Your task to perform on an android device: open app "Life360: Find Family & Friends" (install if not already installed), go to login, and select forgot password Image 0: 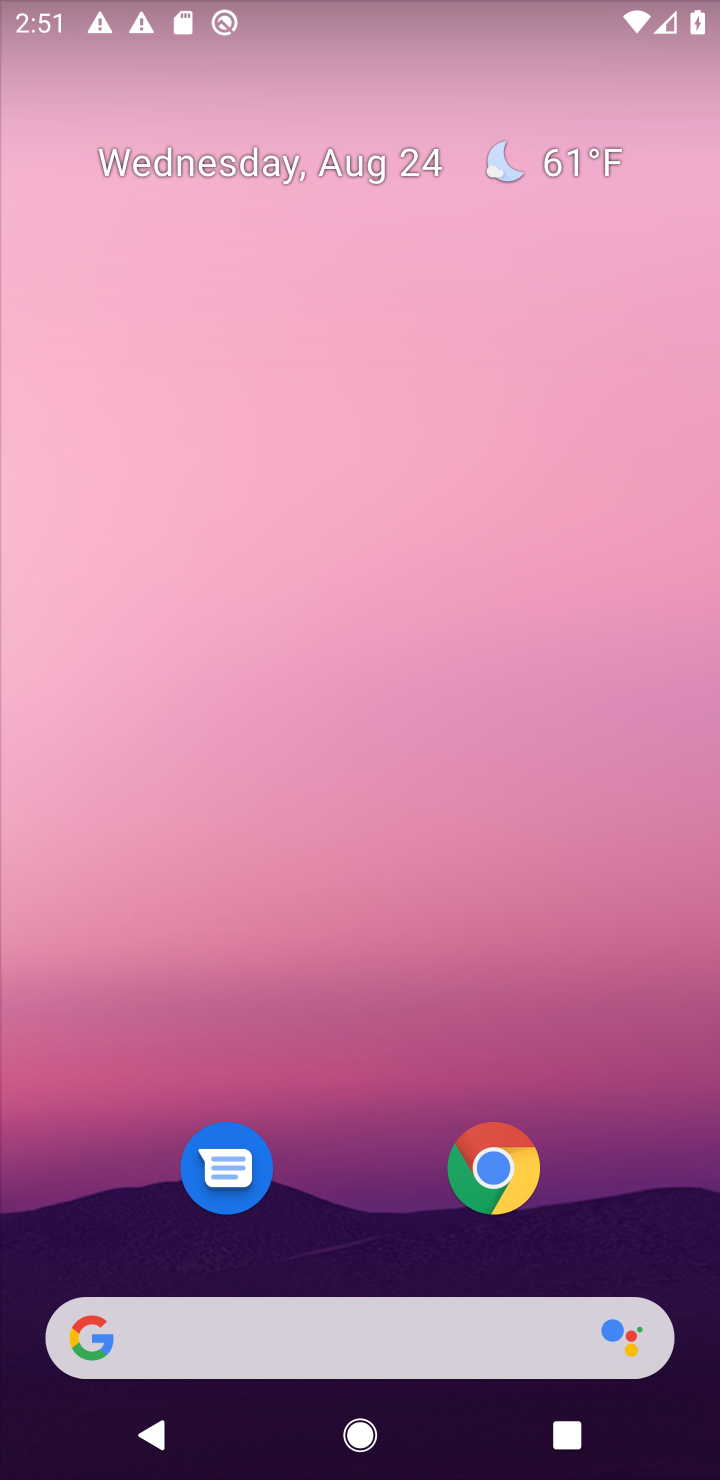
Step 0: drag from (682, 1254) to (641, 236)
Your task to perform on an android device: open app "Life360: Find Family & Friends" (install if not already installed), go to login, and select forgot password Image 1: 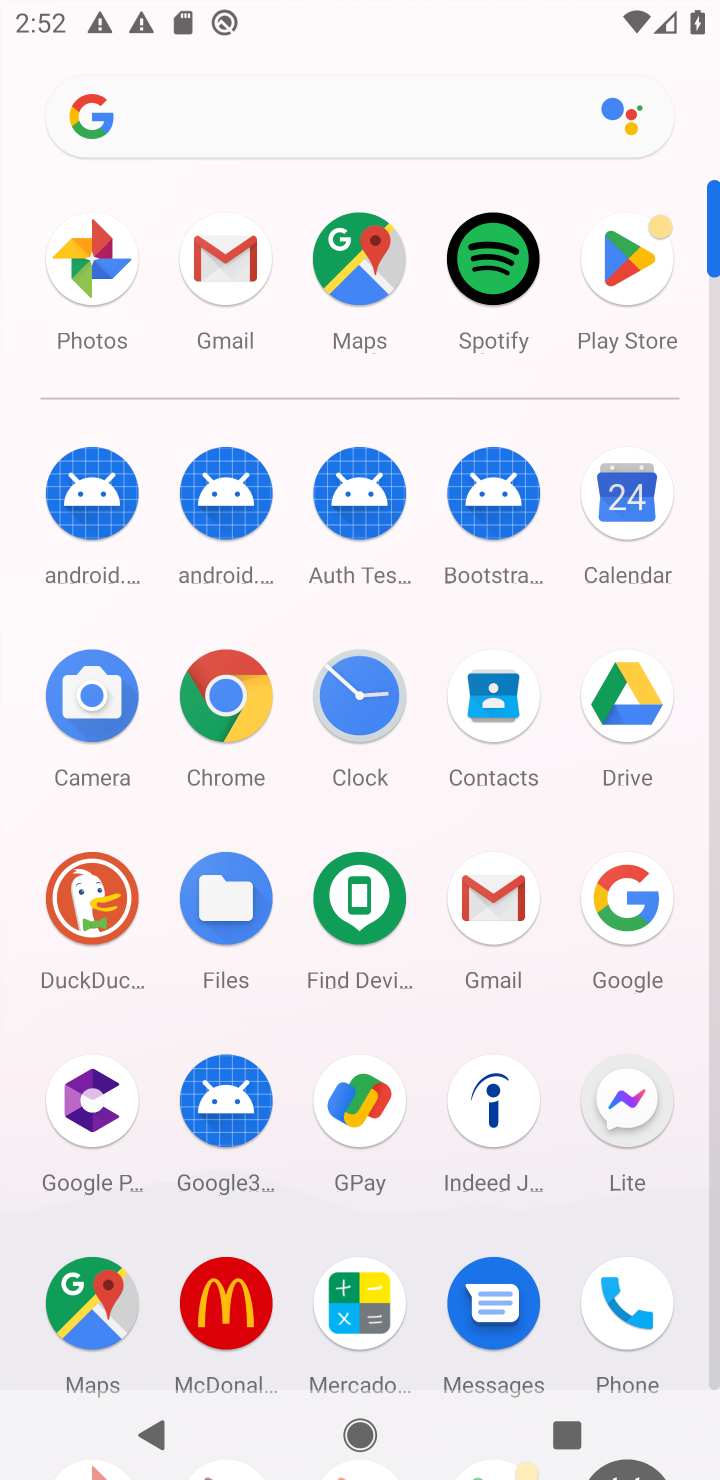
Step 1: click (713, 1307)
Your task to perform on an android device: open app "Life360: Find Family & Friends" (install if not already installed), go to login, and select forgot password Image 2: 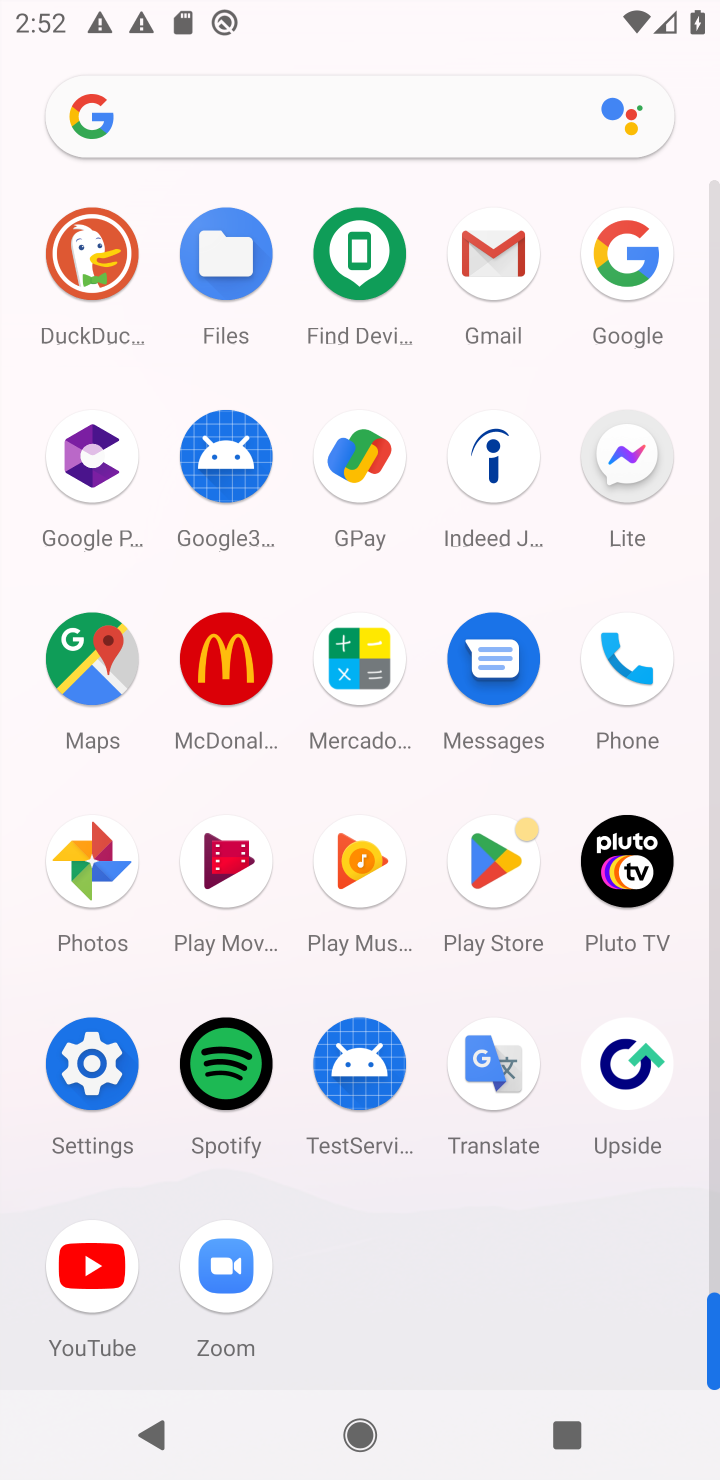
Step 2: click (506, 860)
Your task to perform on an android device: open app "Life360: Find Family & Friends" (install if not already installed), go to login, and select forgot password Image 3: 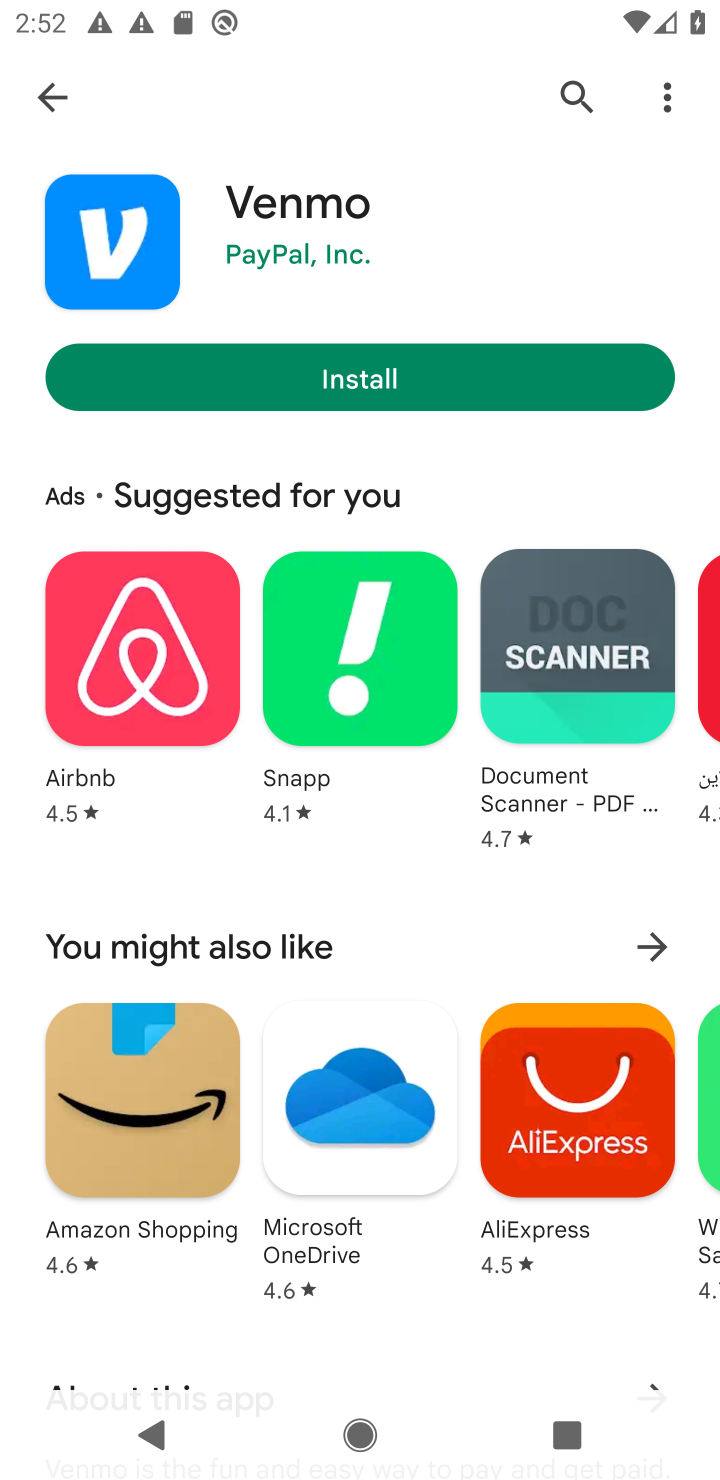
Step 3: click (578, 101)
Your task to perform on an android device: open app "Life360: Find Family & Friends" (install if not already installed), go to login, and select forgot password Image 4: 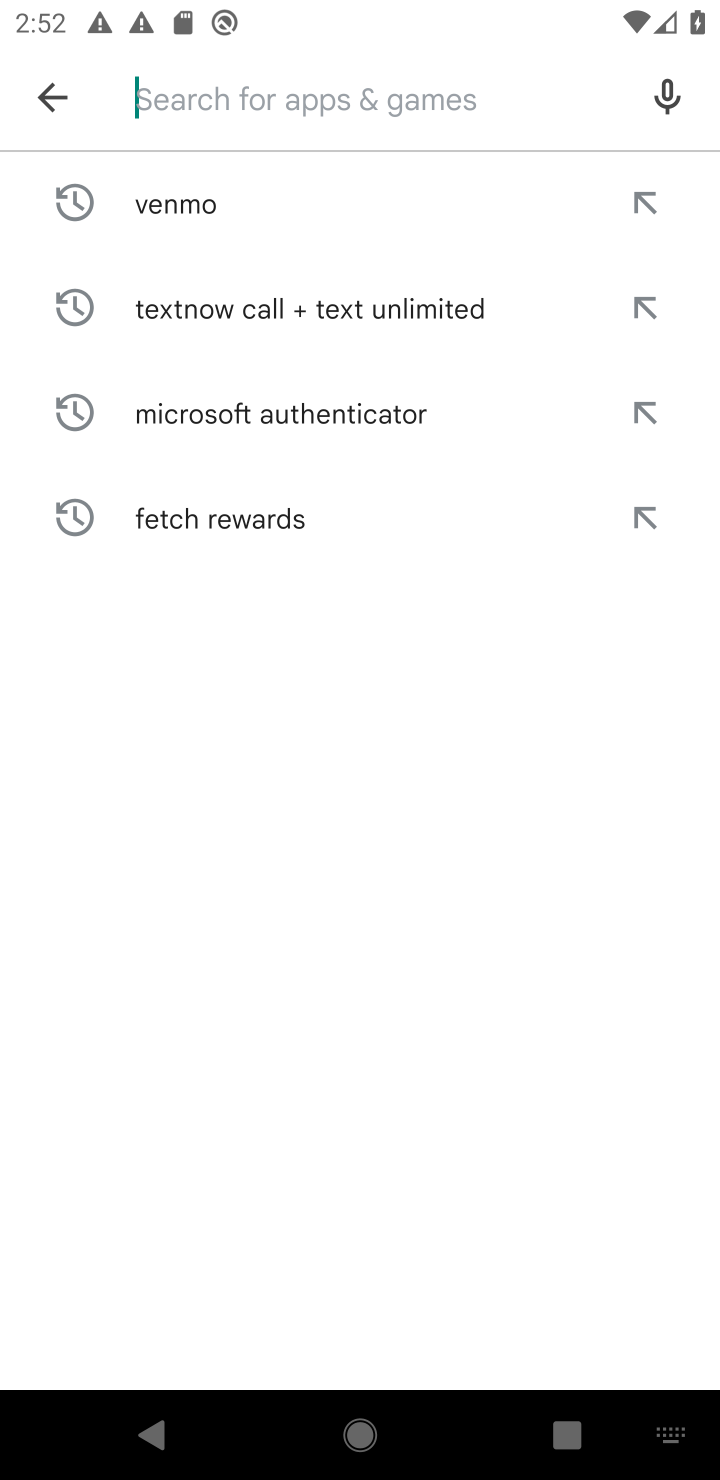
Step 4: type "Life360: Find Family & Friends"
Your task to perform on an android device: open app "Life360: Find Family & Friends" (install if not already installed), go to login, and select forgot password Image 5: 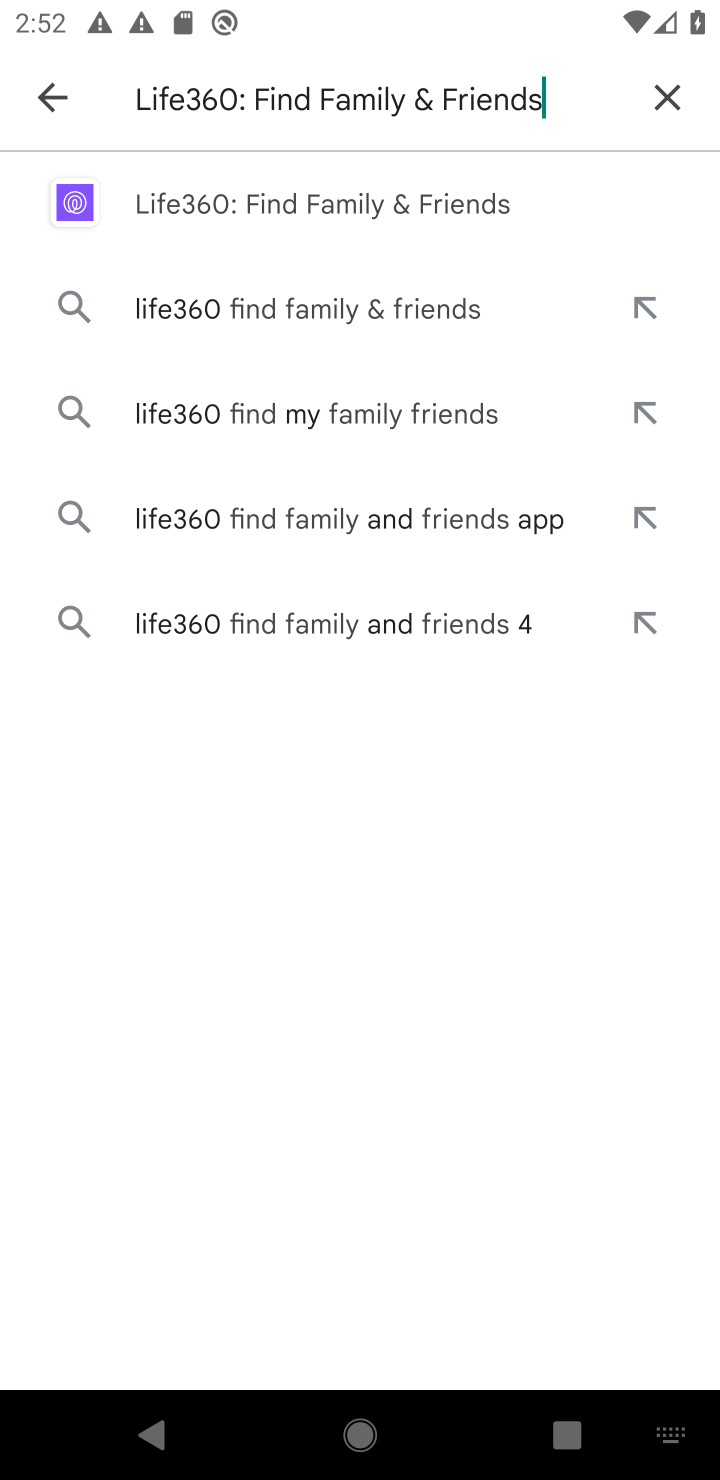
Step 5: click (211, 183)
Your task to perform on an android device: open app "Life360: Find Family & Friends" (install if not already installed), go to login, and select forgot password Image 6: 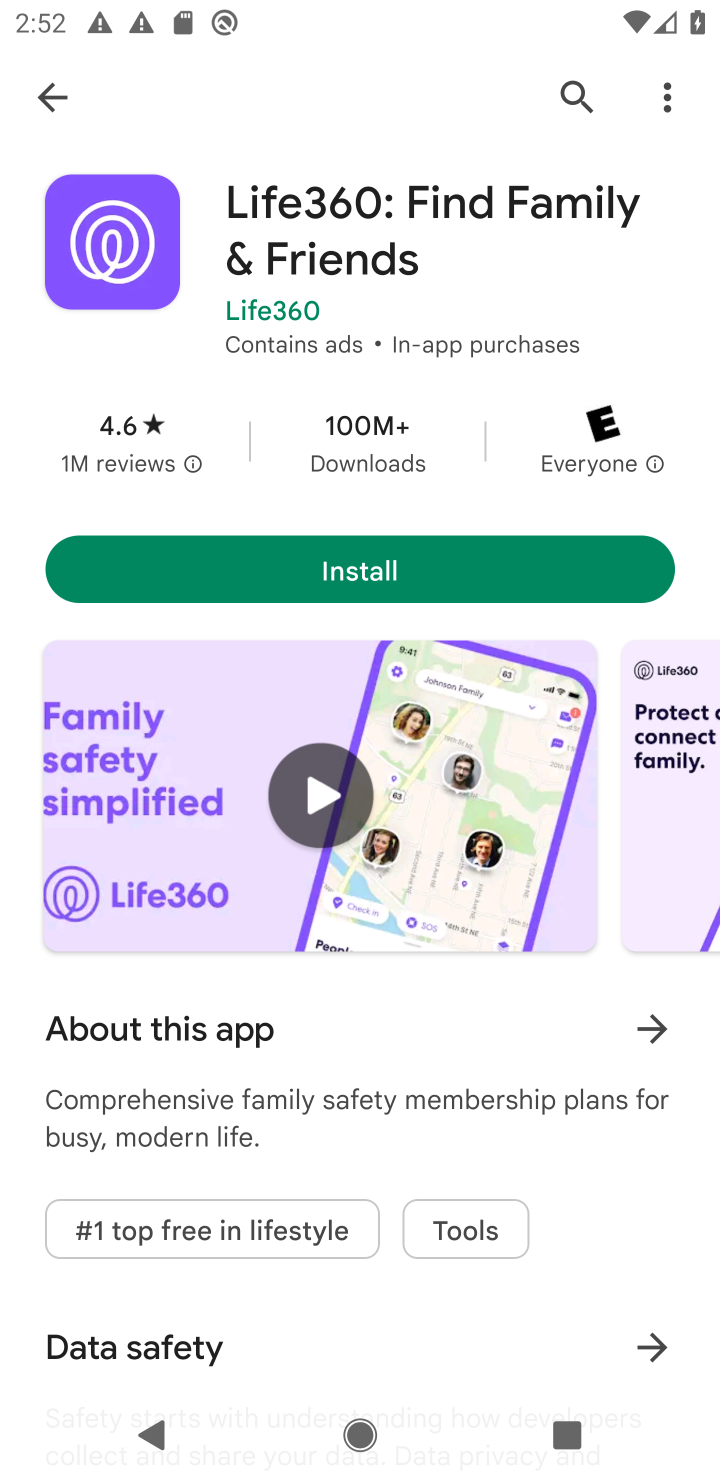
Step 6: click (354, 555)
Your task to perform on an android device: open app "Life360: Find Family & Friends" (install if not already installed), go to login, and select forgot password Image 7: 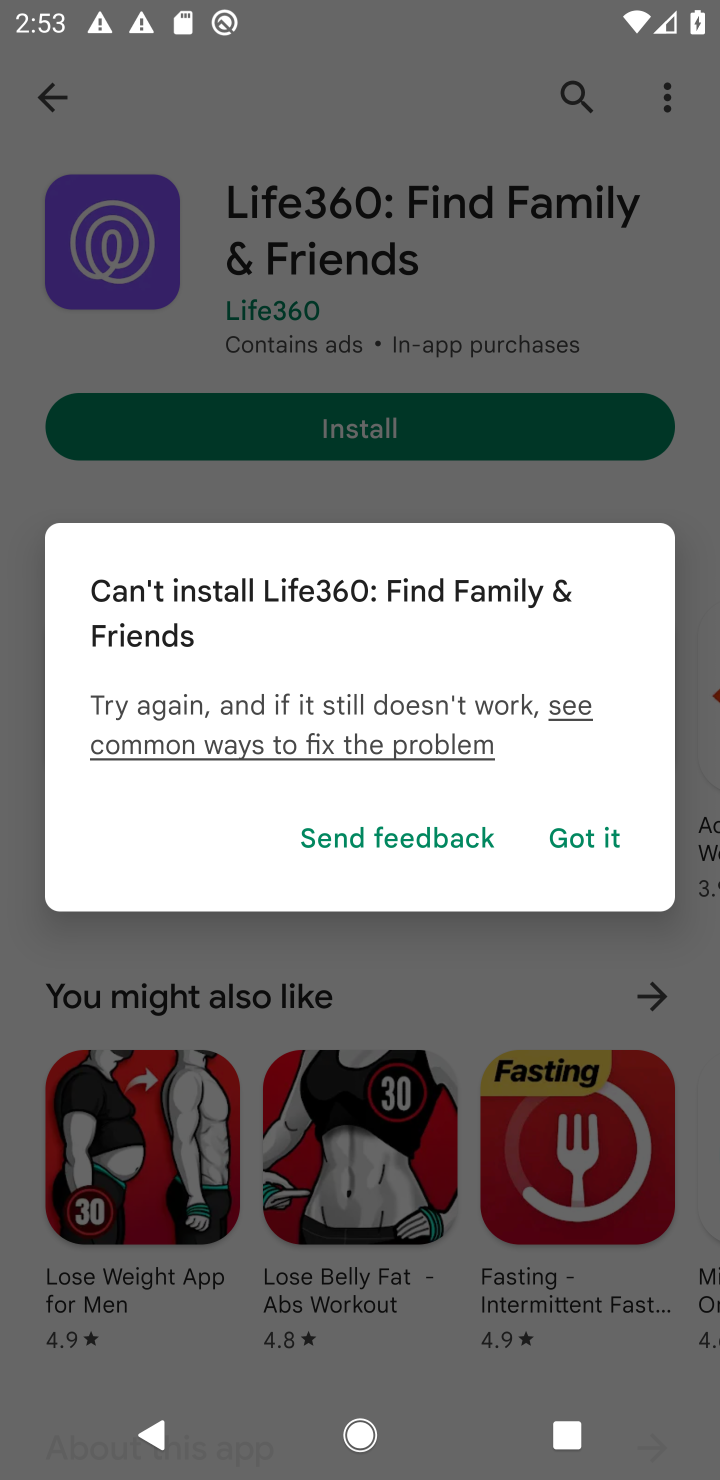
Step 7: click (577, 843)
Your task to perform on an android device: open app "Life360: Find Family & Friends" (install if not already installed), go to login, and select forgot password Image 8: 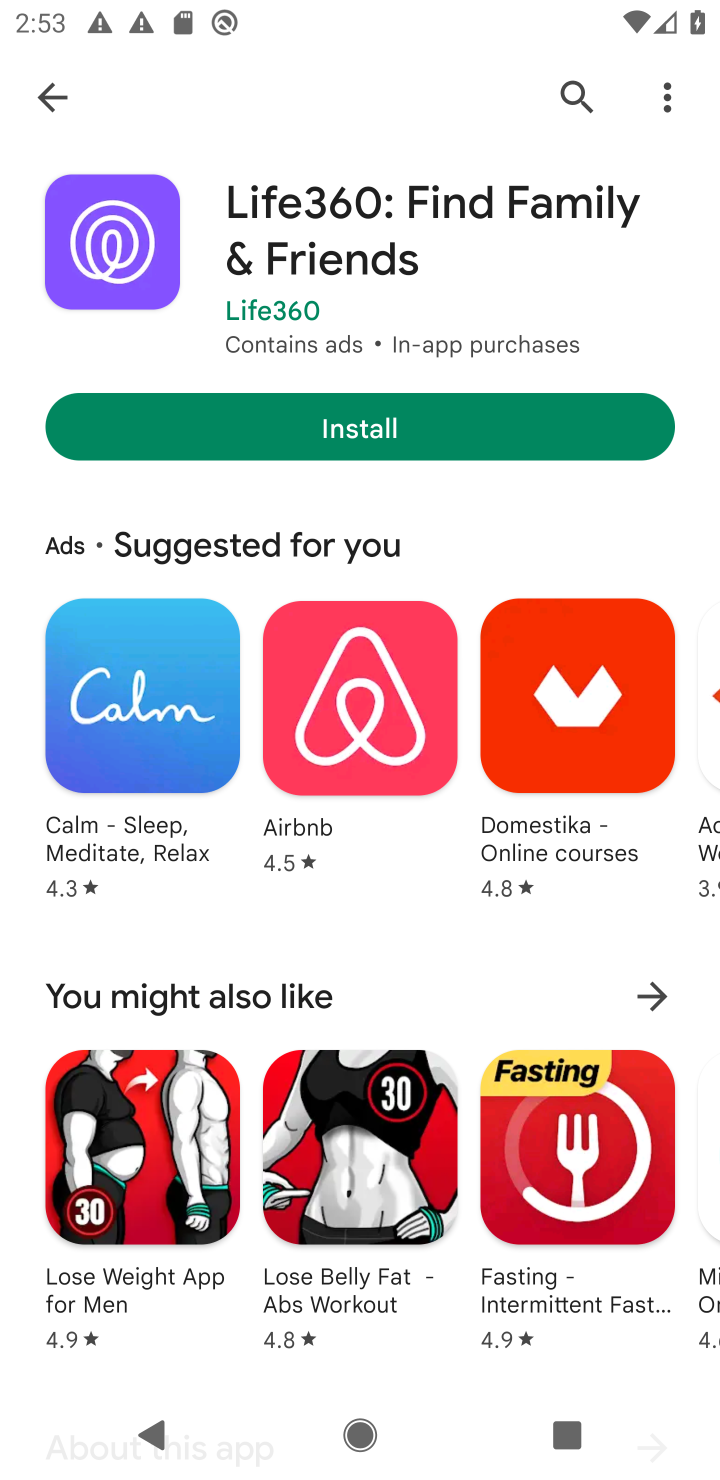
Step 8: task complete